Your task to perform on an android device: change the clock display to analog Image 0: 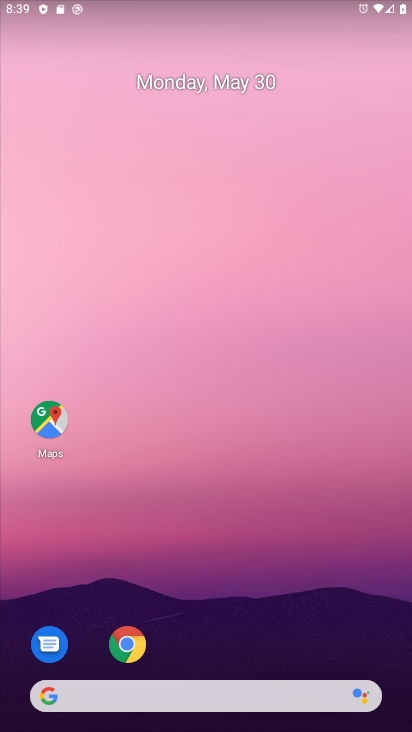
Step 0: drag from (394, 640) to (336, 187)
Your task to perform on an android device: change the clock display to analog Image 1: 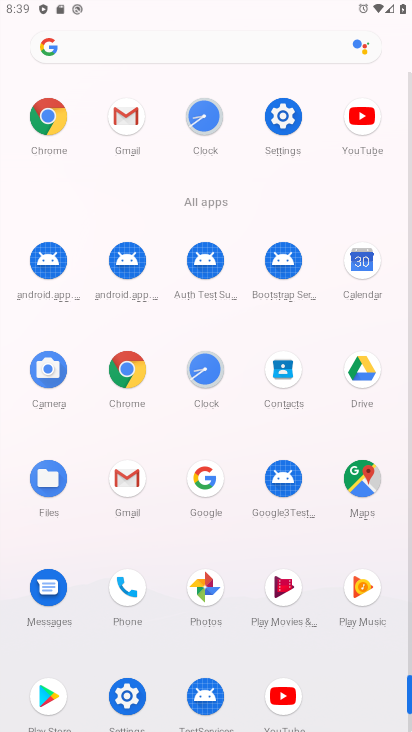
Step 1: click (205, 366)
Your task to perform on an android device: change the clock display to analog Image 2: 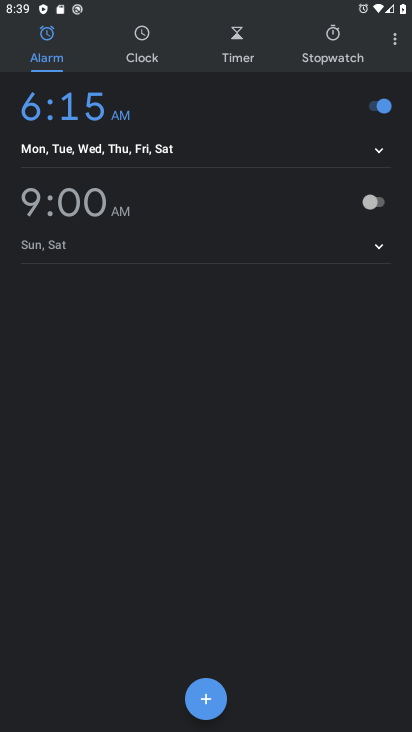
Step 2: click (397, 44)
Your task to perform on an android device: change the clock display to analog Image 3: 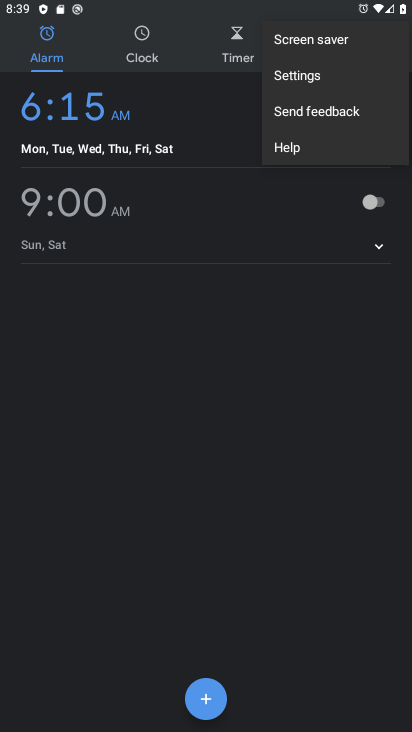
Step 3: click (301, 73)
Your task to perform on an android device: change the clock display to analog Image 4: 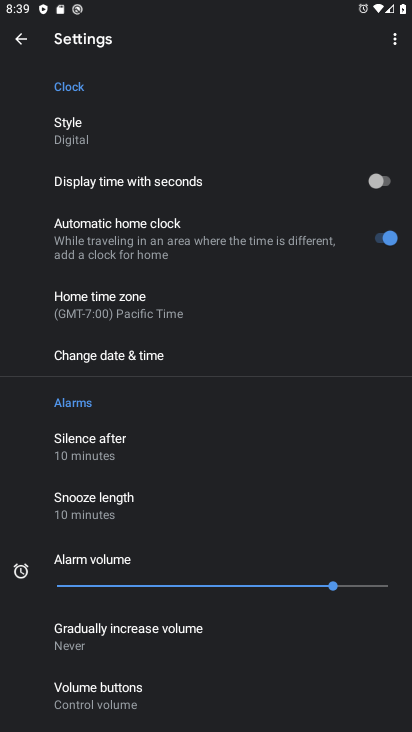
Step 4: click (78, 127)
Your task to perform on an android device: change the clock display to analog Image 5: 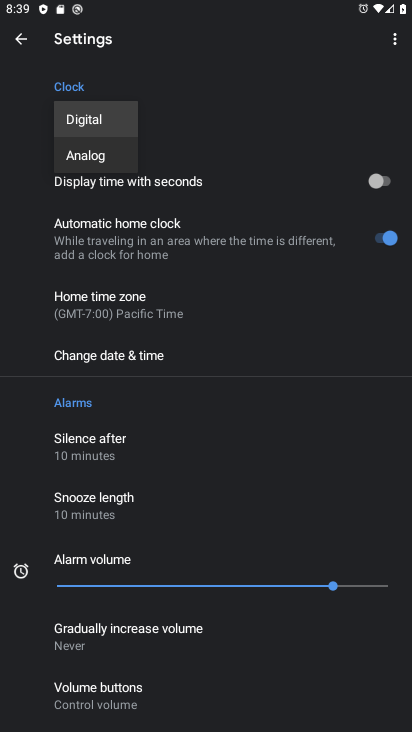
Step 5: click (87, 163)
Your task to perform on an android device: change the clock display to analog Image 6: 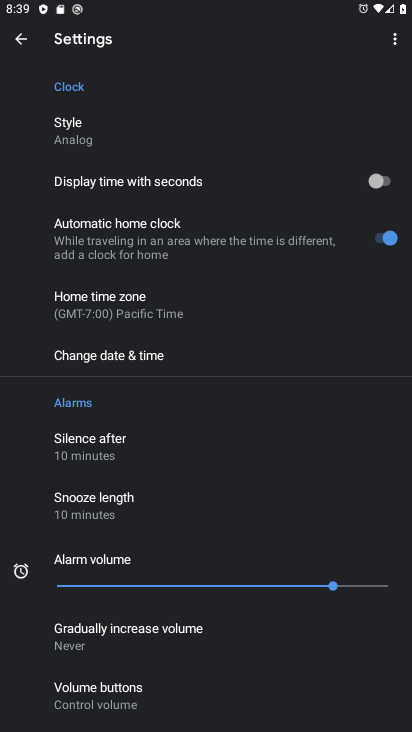
Step 6: task complete